Your task to perform on an android device: toggle wifi Image 0: 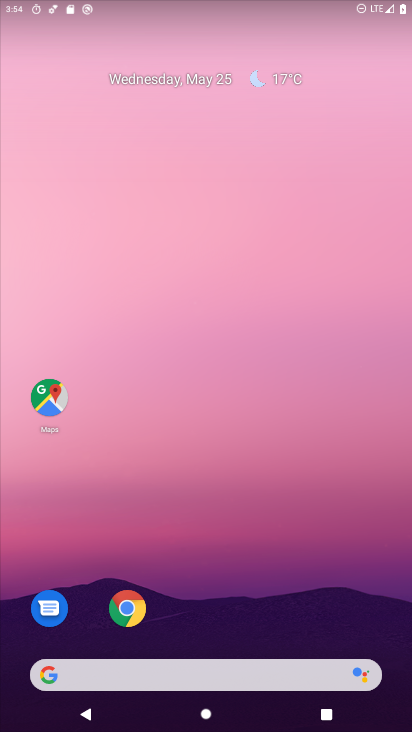
Step 0: drag from (284, 579) to (257, 143)
Your task to perform on an android device: toggle wifi Image 1: 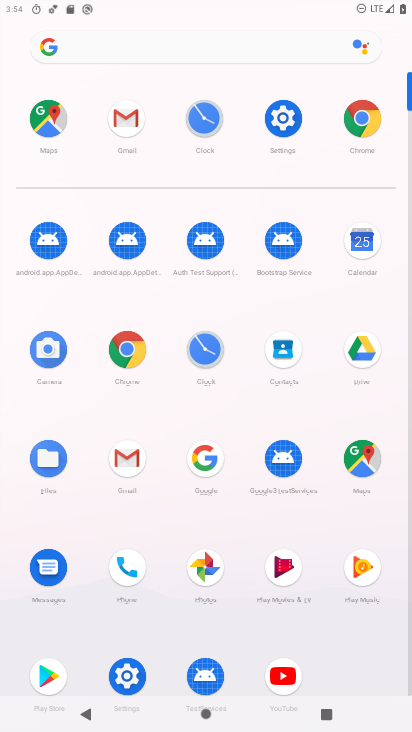
Step 1: click (272, 122)
Your task to perform on an android device: toggle wifi Image 2: 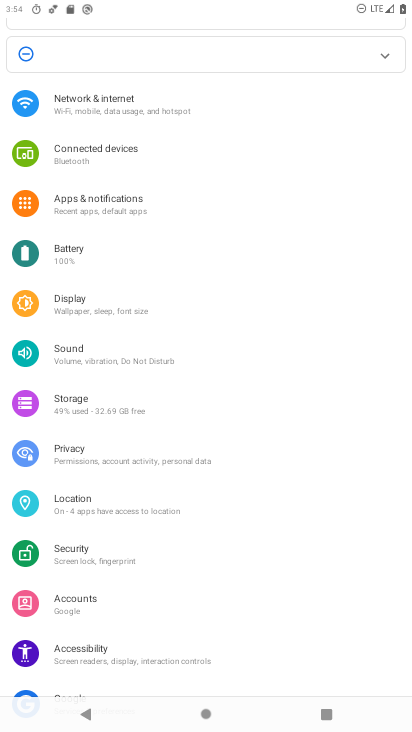
Step 2: click (119, 107)
Your task to perform on an android device: toggle wifi Image 3: 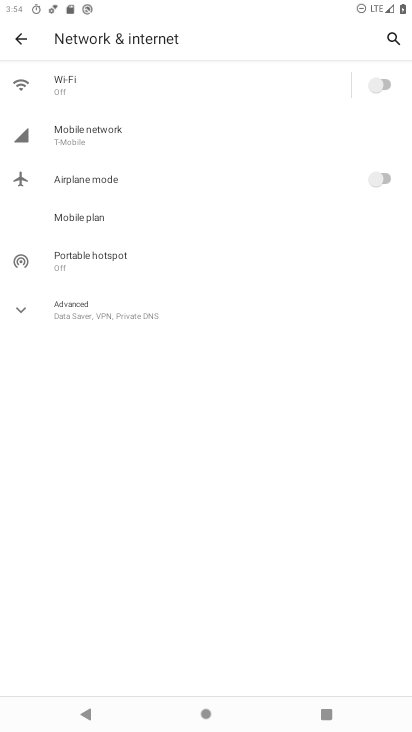
Step 3: click (94, 91)
Your task to perform on an android device: toggle wifi Image 4: 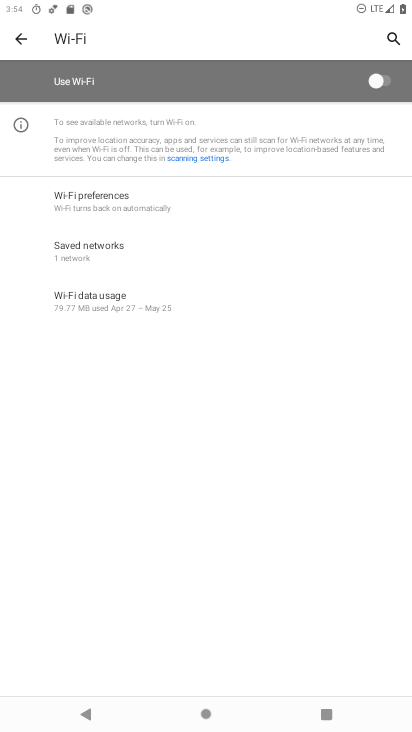
Step 4: click (373, 76)
Your task to perform on an android device: toggle wifi Image 5: 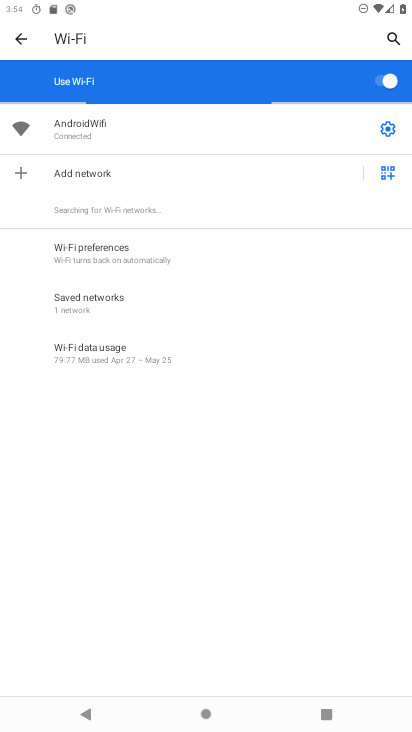
Step 5: task complete